Your task to perform on an android device: Search for energizer triple a on newegg, select the first entry, and add it to the cart. Image 0: 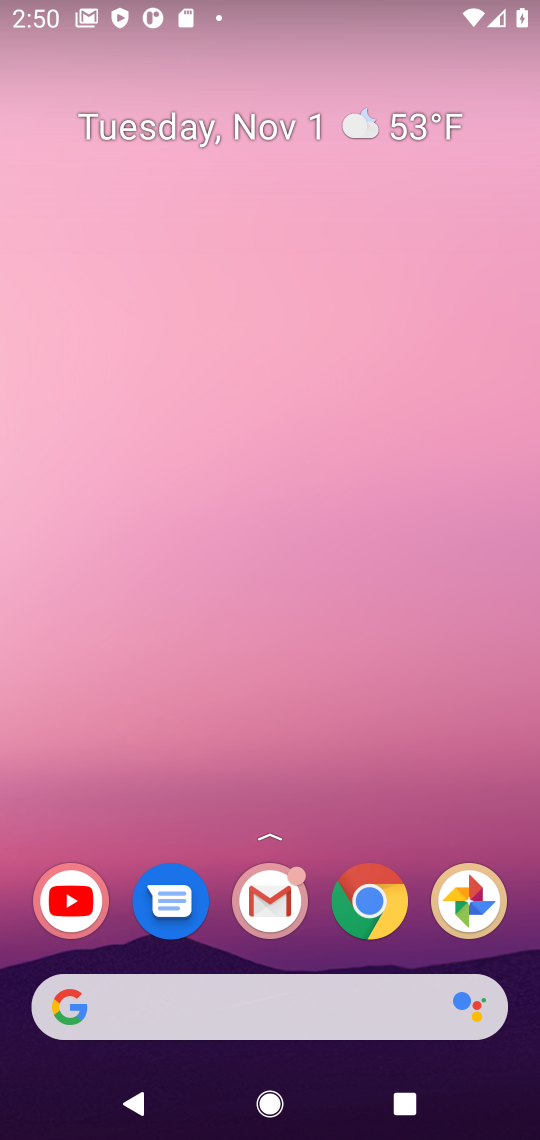
Step 0: click (361, 913)
Your task to perform on an android device: Search for energizer triple a on newegg, select the first entry, and add it to the cart. Image 1: 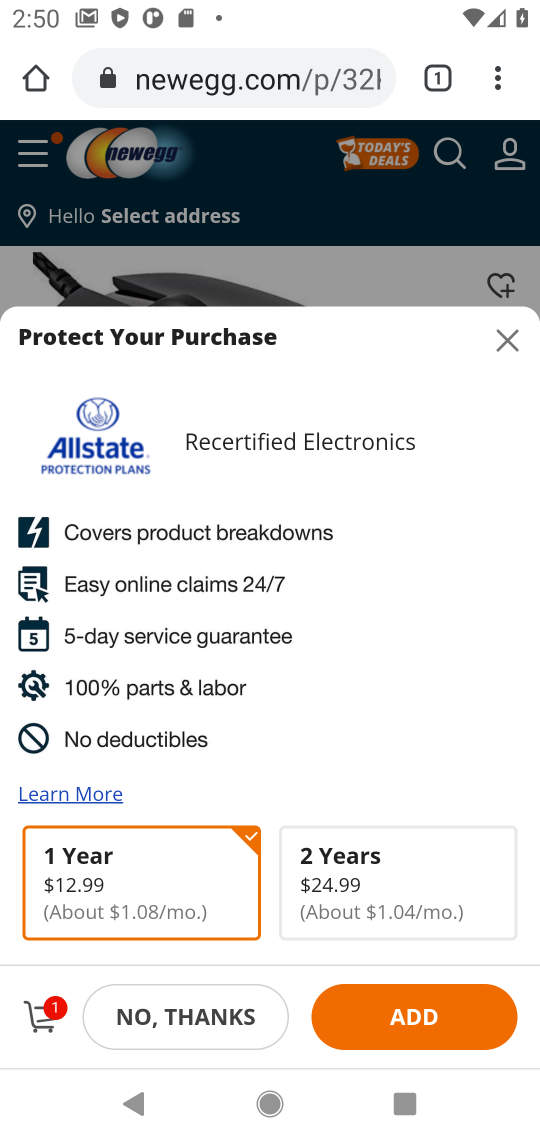
Step 1: click (180, 89)
Your task to perform on an android device: Search for energizer triple a on newegg, select the first entry, and add it to the cart. Image 2: 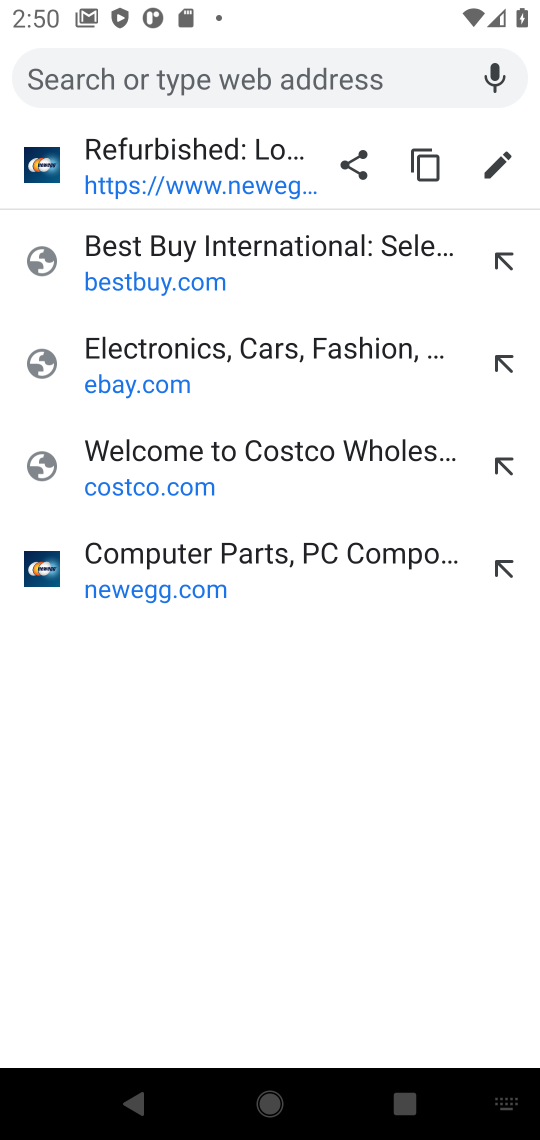
Step 2: press back button
Your task to perform on an android device: Search for energizer triple a on newegg, select the first entry, and add it to the cart. Image 3: 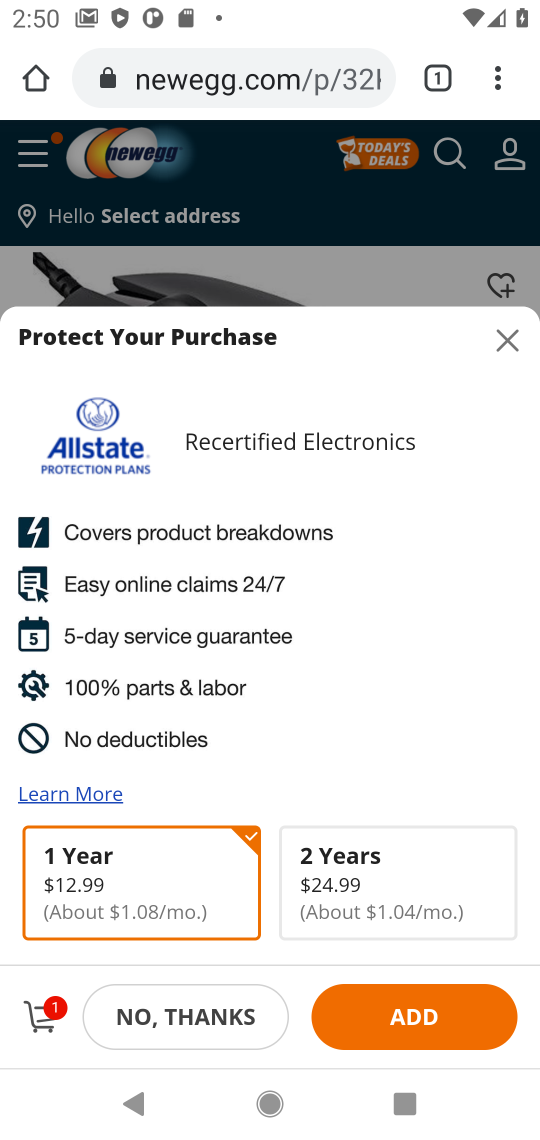
Step 3: click (515, 345)
Your task to perform on an android device: Search for energizer triple a on newegg, select the first entry, and add it to the cart. Image 4: 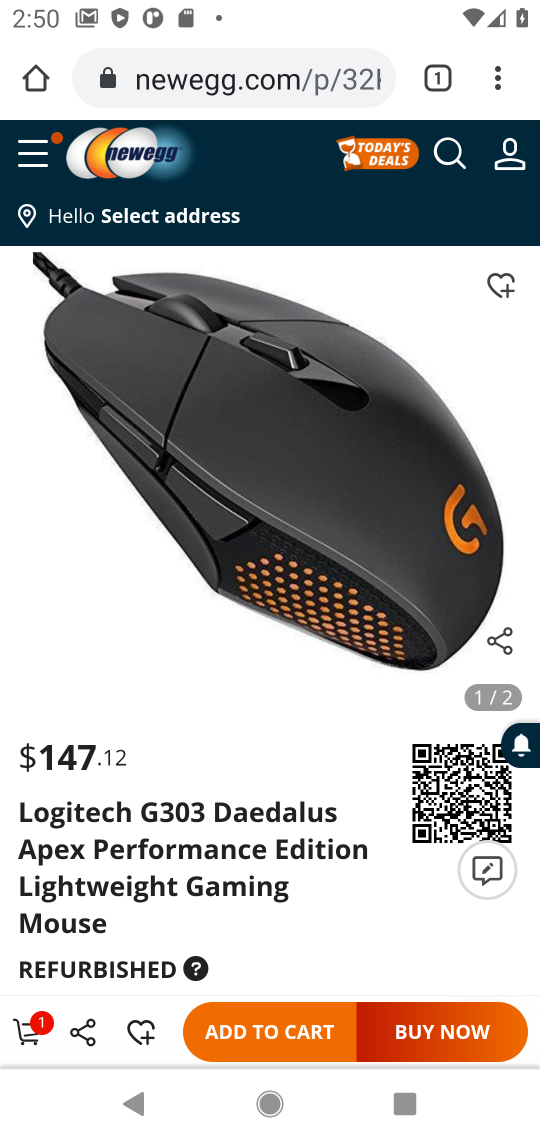
Step 4: click (452, 149)
Your task to perform on an android device: Search for energizer triple a on newegg, select the first entry, and add it to the cart. Image 5: 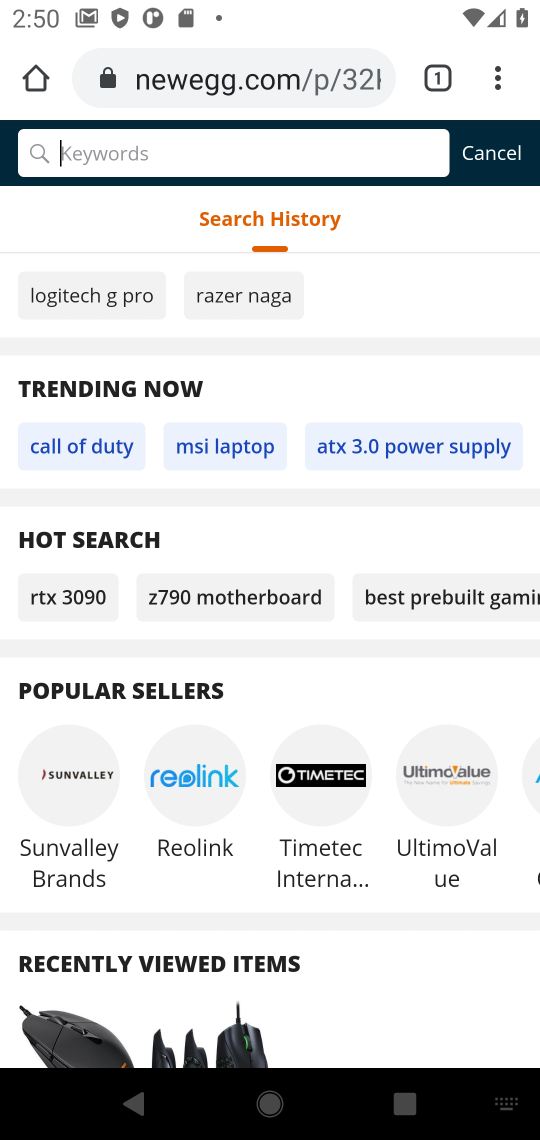
Step 5: type "energizer triple"
Your task to perform on an android device: Search for energizer triple a on newegg, select the first entry, and add it to the cart. Image 6: 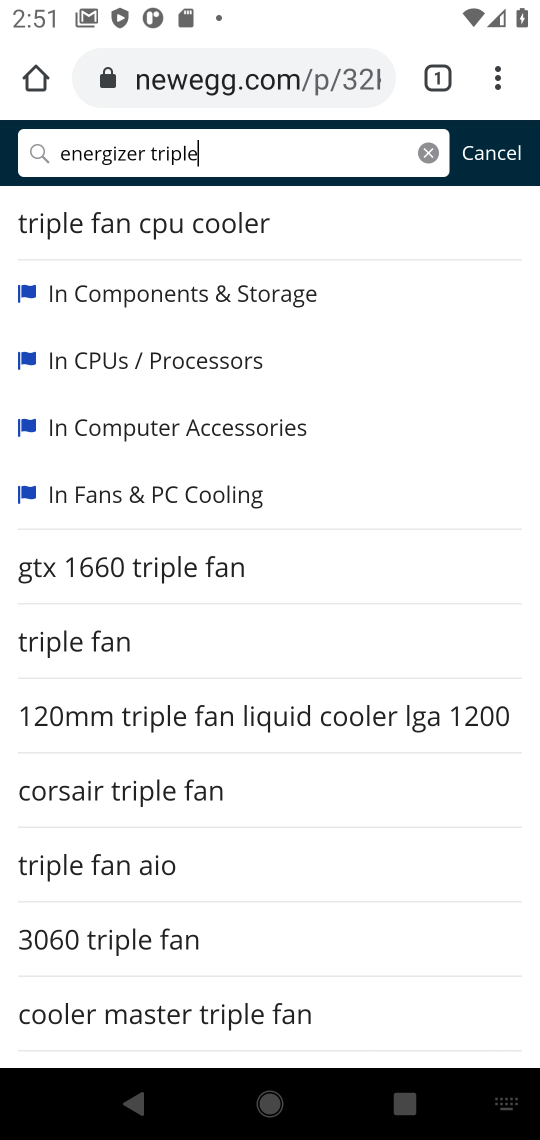
Step 6: press enter
Your task to perform on an android device: Search for energizer triple a on newegg, select the first entry, and add it to the cart. Image 7: 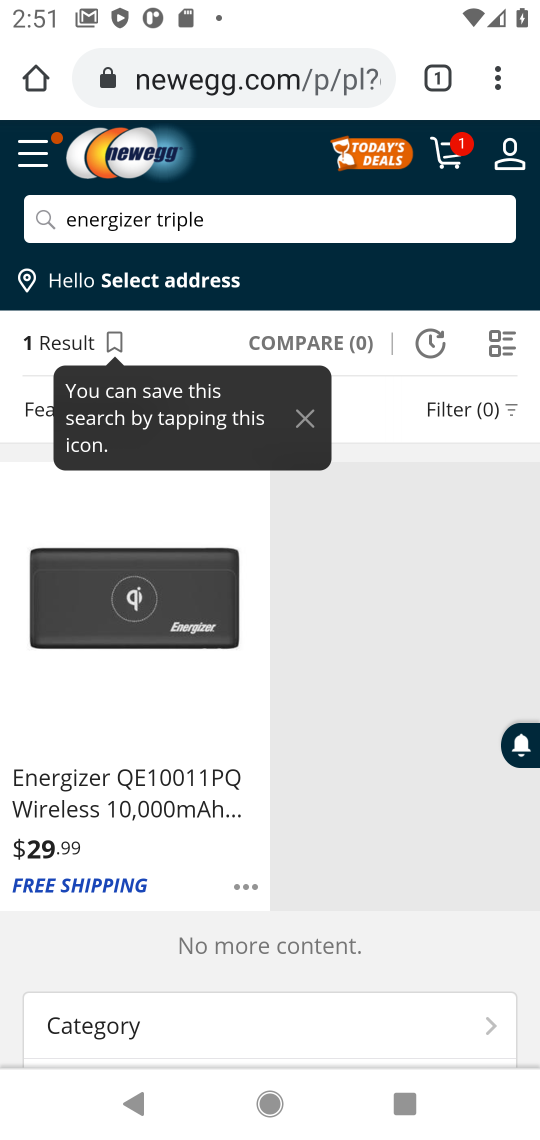
Step 7: click (147, 713)
Your task to perform on an android device: Search for energizer triple a on newegg, select the first entry, and add it to the cart. Image 8: 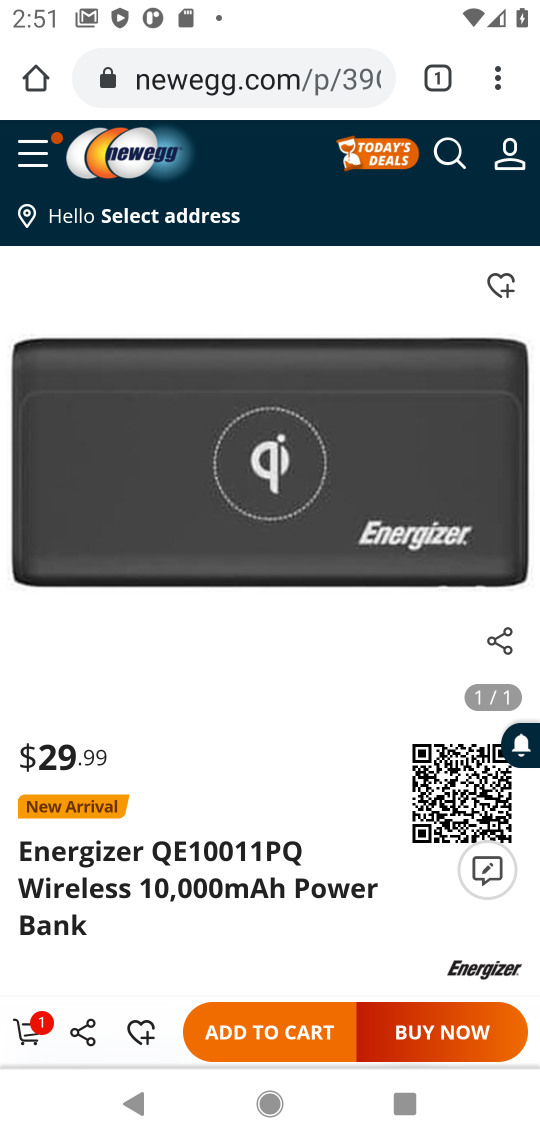
Step 8: click (275, 1038)
Your task to perform on an android device: Search for energizer triple a on newegg, select the first entry, and add it to the cart. Image 9: 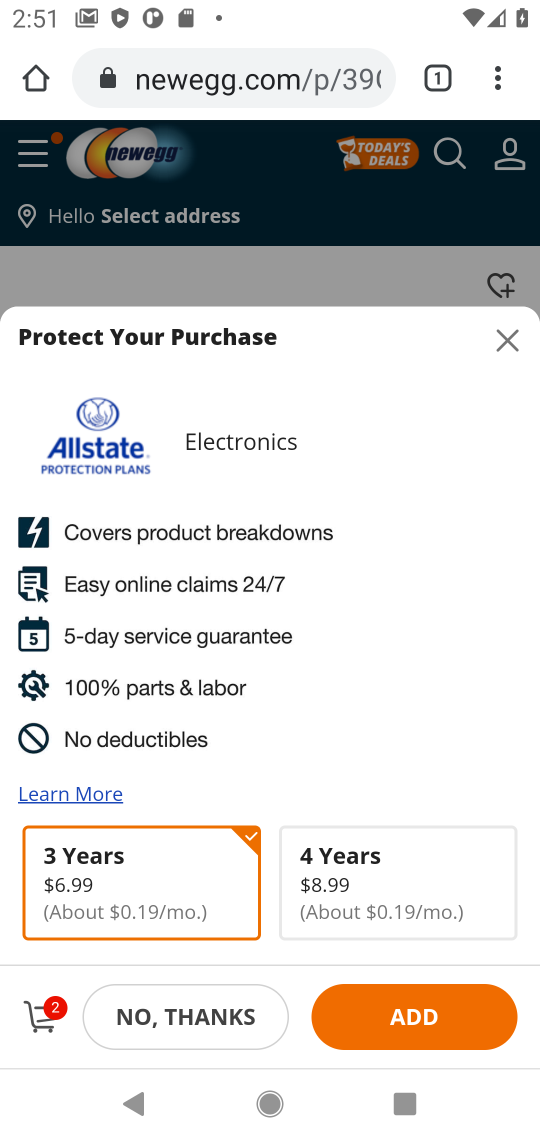
Step 9: click (228, 1028)
Your task to perform on an android device: Search for energizer triple a on newegg, select the first entry, and add it to the cart. Image 10: 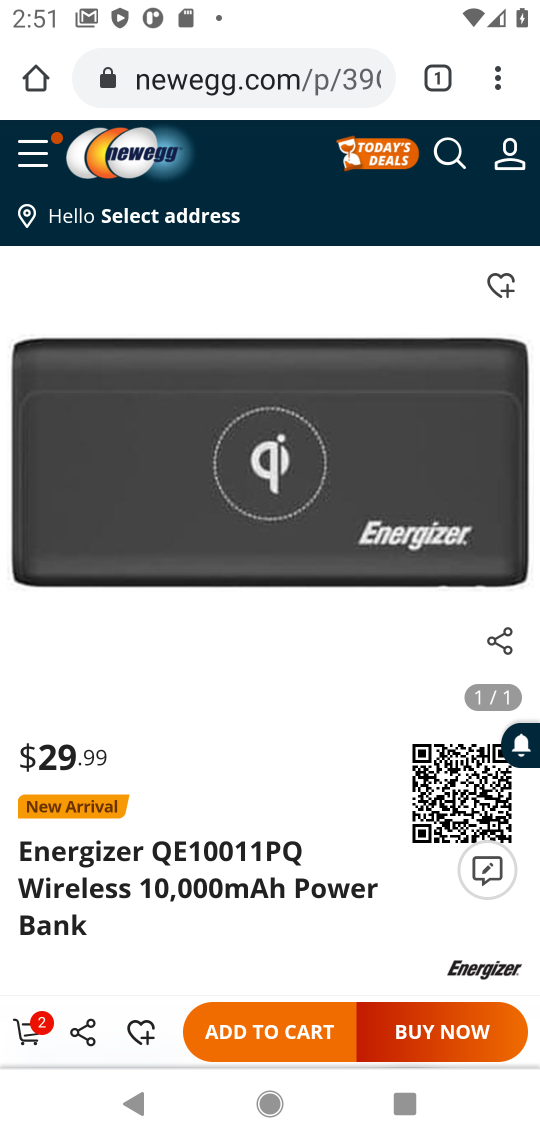
Step 10: task complete